Your task to perform on an android device: find which apps use the phone's location Image 0: 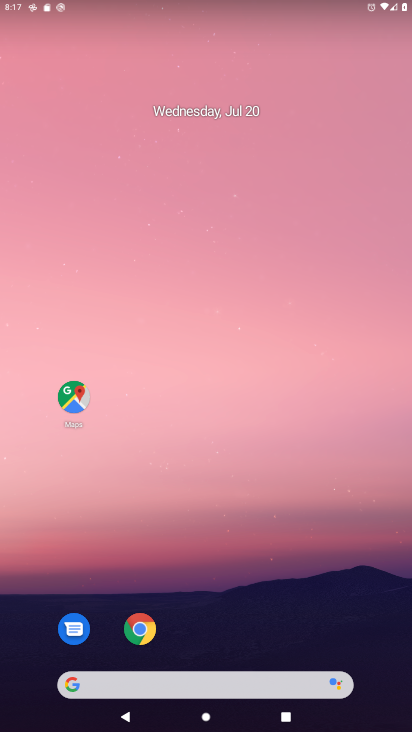
Step 0: drag from (305, 607) to (285, 246)
Your task to perform on an android device: find which apps use the phone's location Image 1: 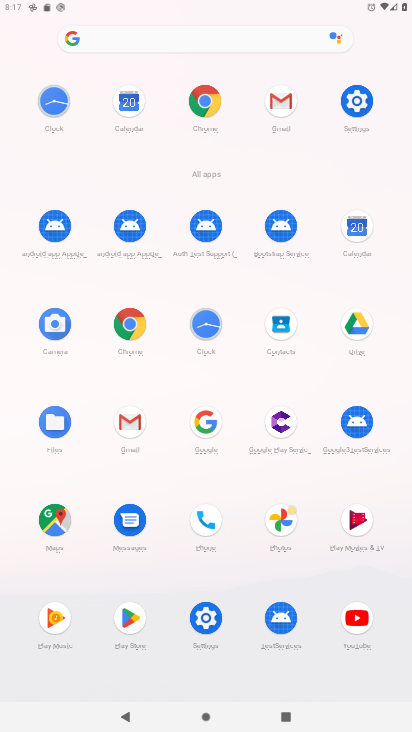
Step 1: click (203, 622)
Your task to perform on an android device: find which apps use the phone's location Image 2: 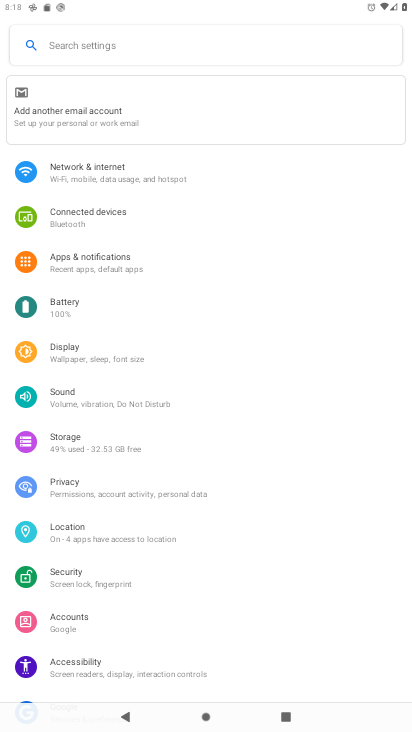
Step 2: click (105, 529)
Your task to perform on an android device: find which apps use the phone's location Image 3: 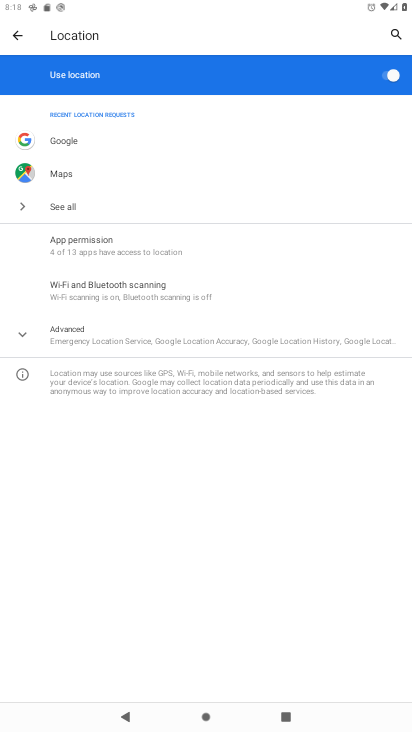
Step 3: click (117, 248)
Your task to perform on an android device: find which apps use the phone's location Image 4: 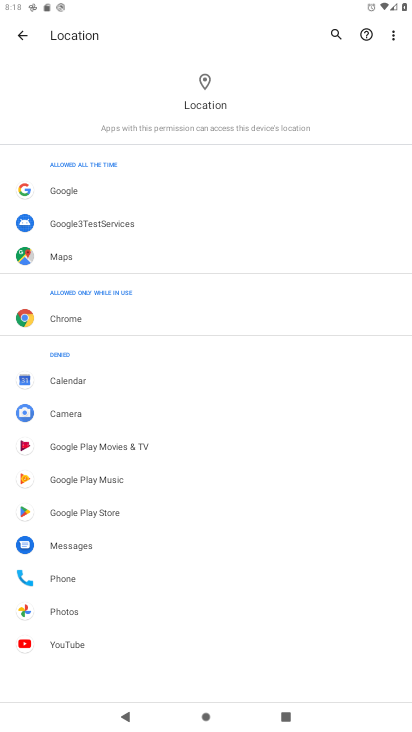
Step 4: task complete